Your task to perform on an android device: Open Youtube and go to the subscriptions tab Image 0: 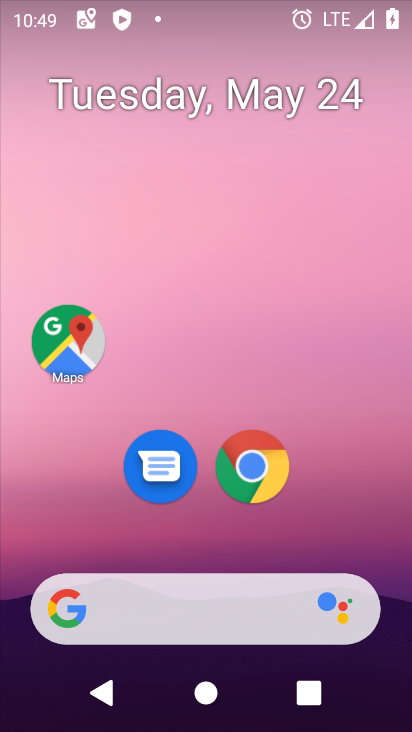
Step 0: drag from (380, 560) to (347, 106)
Your task to perform on an android device: Open Youtube and go to the subscriptions tab Image 1: 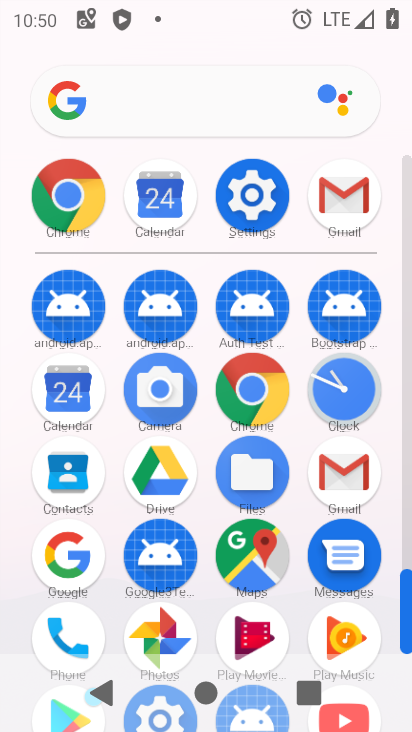
Step 1: drag from (299, 522) to (291, 298)
Your task to perform on an android device: Open Youtube and go to the subscriptions tab Image 2: 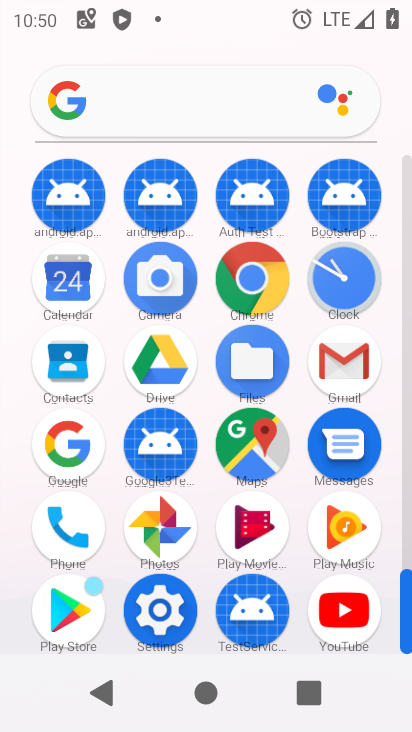
Step 2: click (349, 627)
Your task to perform on an android device: Open Youtube and go to the subscriptions tab Image 3: 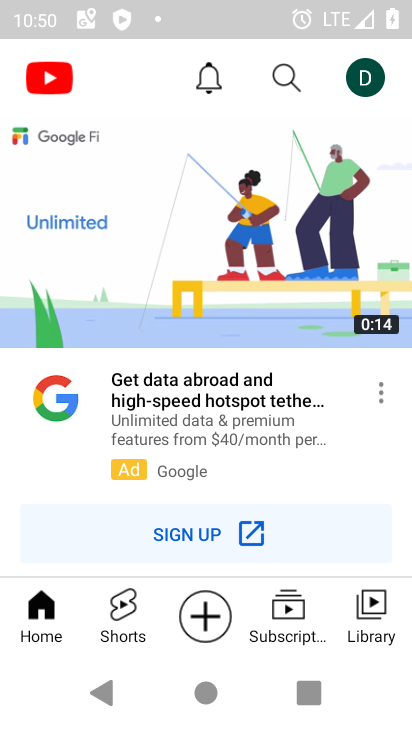
Step 3: click (290, 611)
Your task to perform on an android device: Open Youtube and go to the subscriptions tab Image 4: 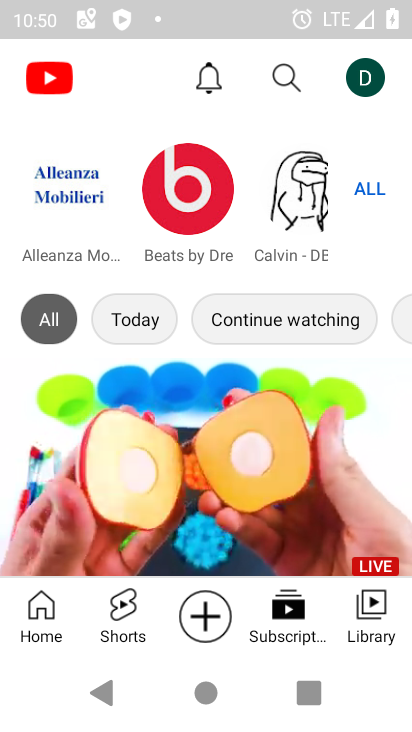
Step 4: task complete